Your task to perform on an android device: Check the price on the Dyson V11 Motorhead on Best Buy Image 0: 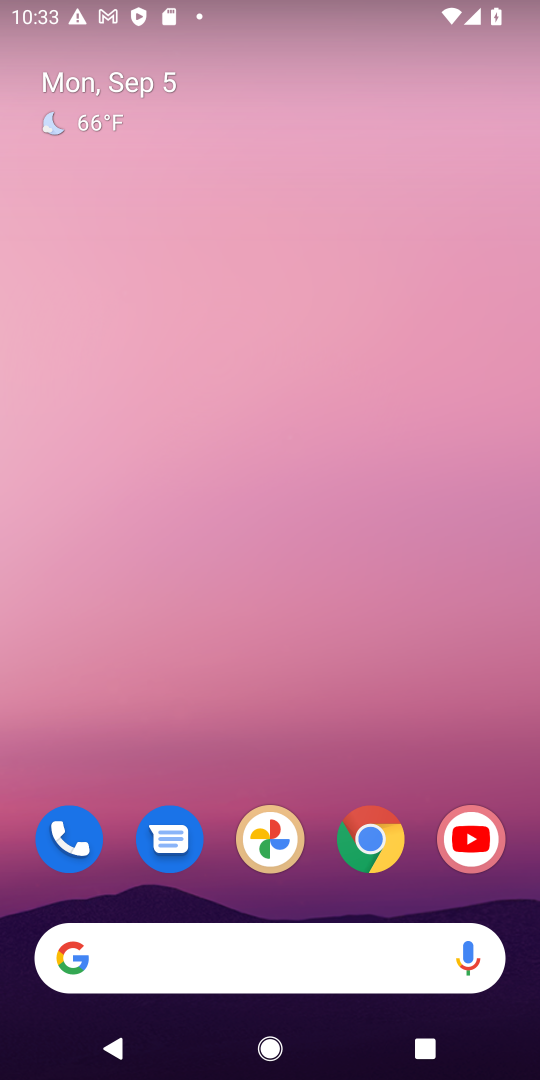
Step 0: drag from (210, 927) to (266, 125)
Your task to perform on an android device: Check the price on the Dyson V11 Motorhead on Best Buy Image 1: 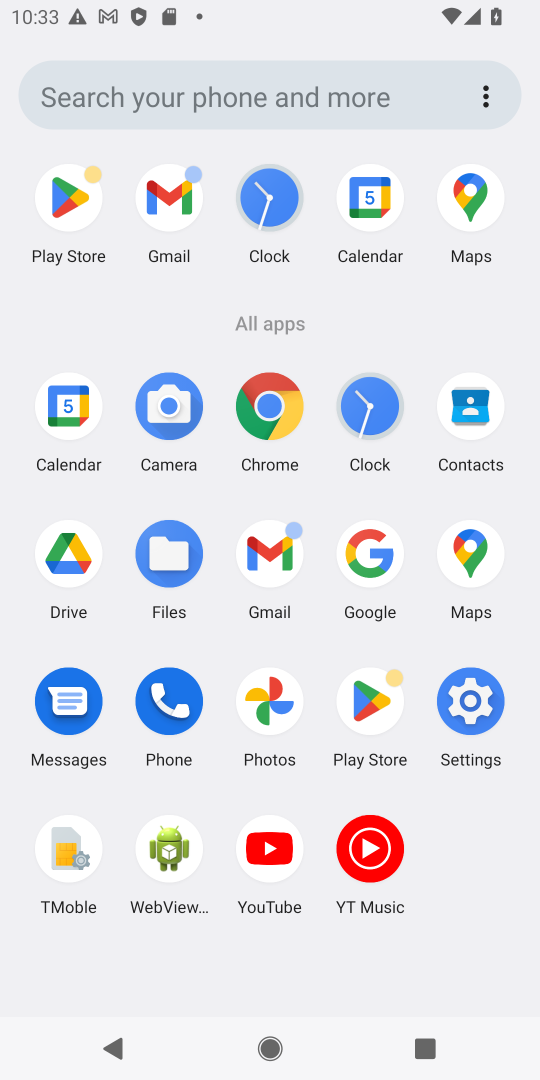
Step 1: click (355, 553)
Your task to perform on an android device: Check the price on the Dyson V11 Motorhead on Best Buy Image 2: 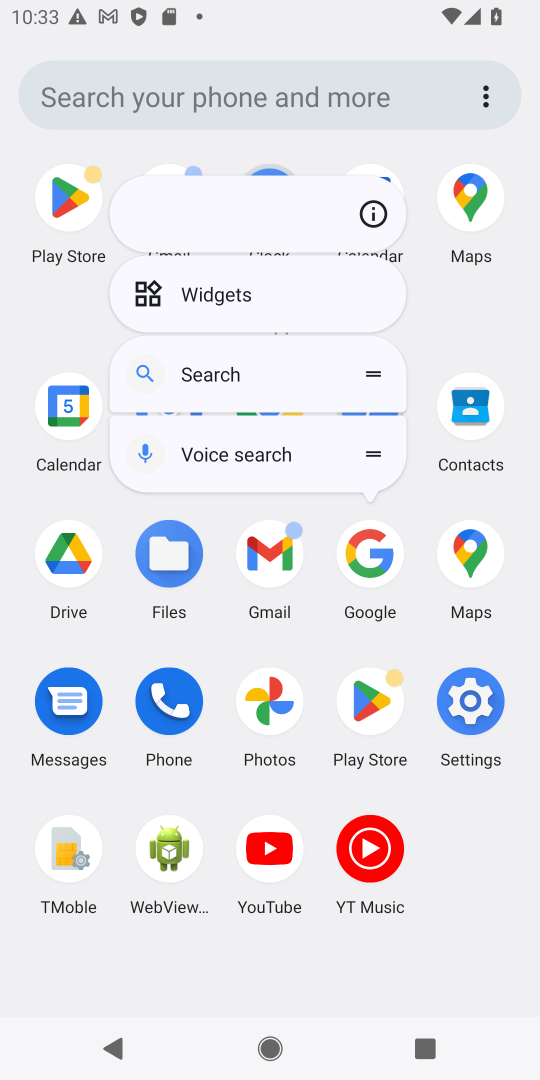
Step 2: click (377, 555)
Your task to perform on an android device: Check the price on the Dyson V11 Motorhead on Best Buy Image 3: 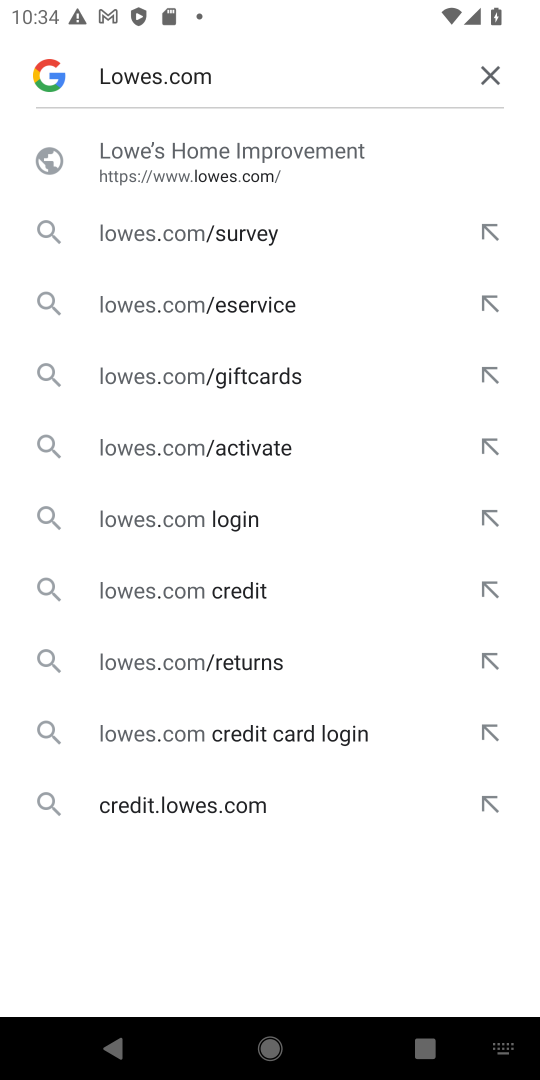
Step 3: click (503, 74)
Your task to perform on an android device: Check the price on the Dyson V11 Motorhead on Best Buy Image 4: 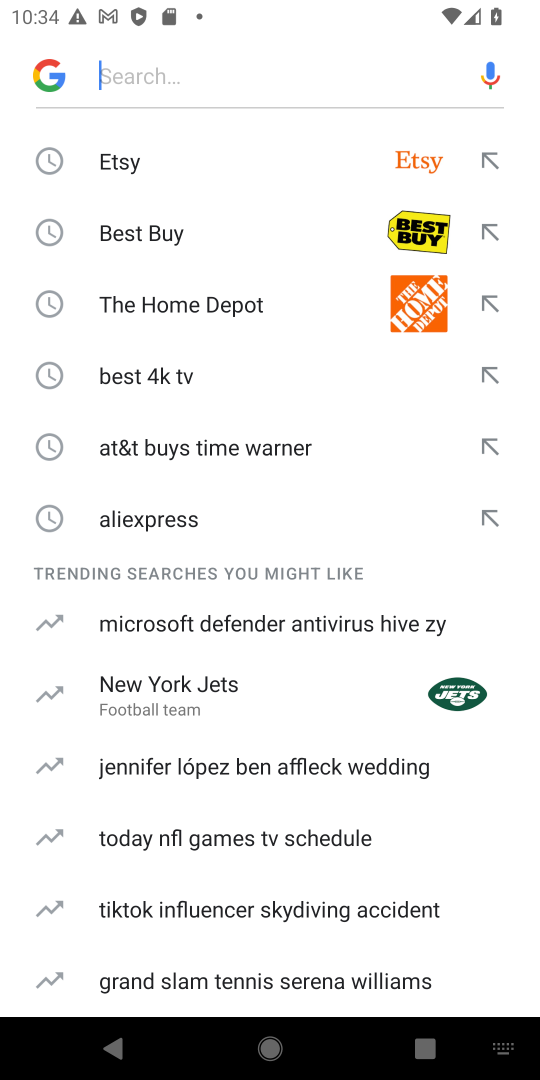
Step 4: type "Best Buy"
Your task to perform on an android device: Check the price on the Dyson V11 Motorhead on Best Buy Image 5: 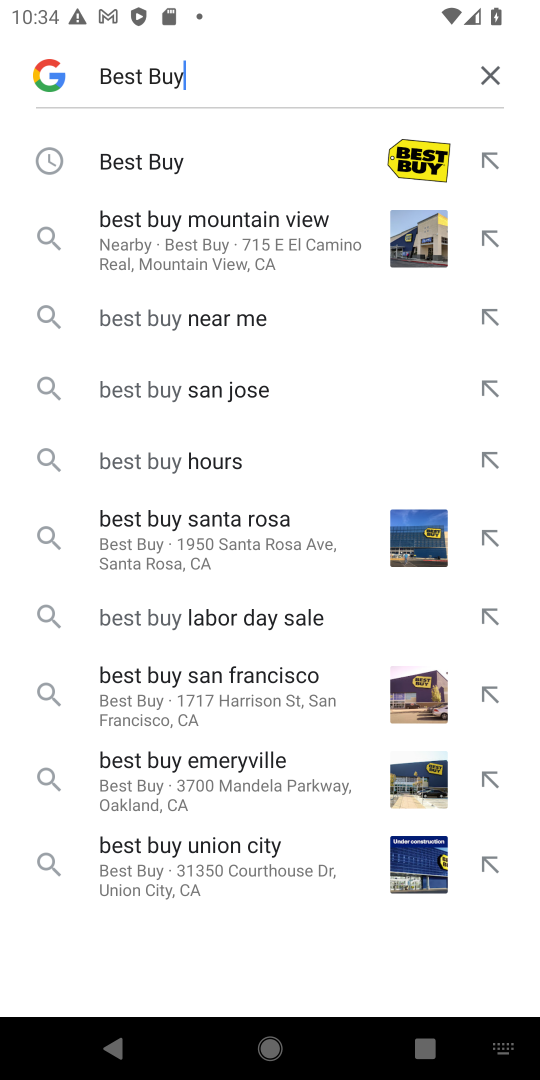
Step 5: click (423, 158)
Your task to perform on an android device: Check the price on the Dyson V11 Motorhead on Best Buy Image 6: 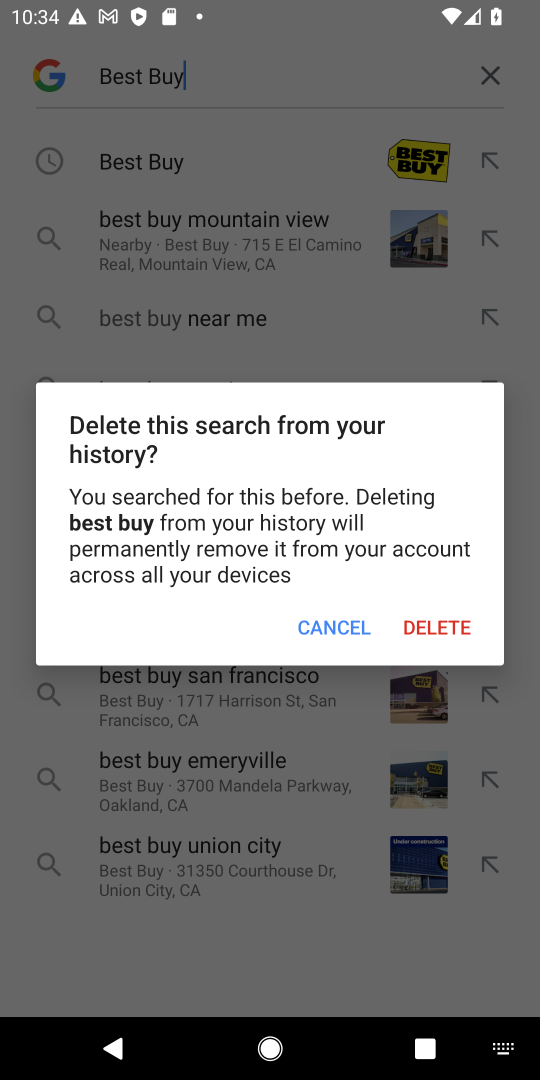
Step 6: click (333, 622)
Your task to perform on an android device: Check the price on the Dyson V11 Motorhead on Best Buy Image 7: 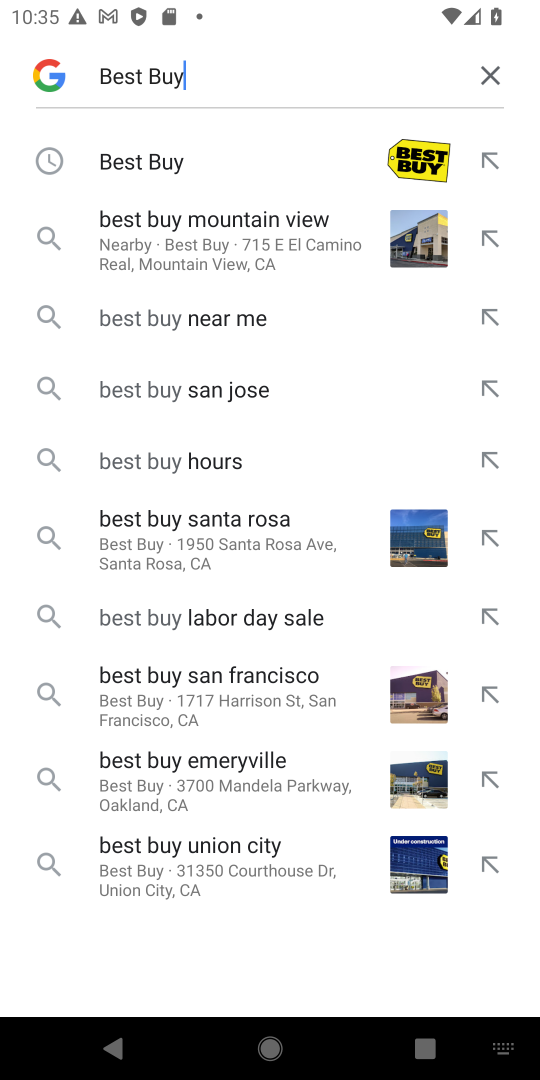
Step 7: click (445, 160)
Your task to perform on an android device: Check the price on the Dyson V11 Motorhead on Best Buy Image 8: 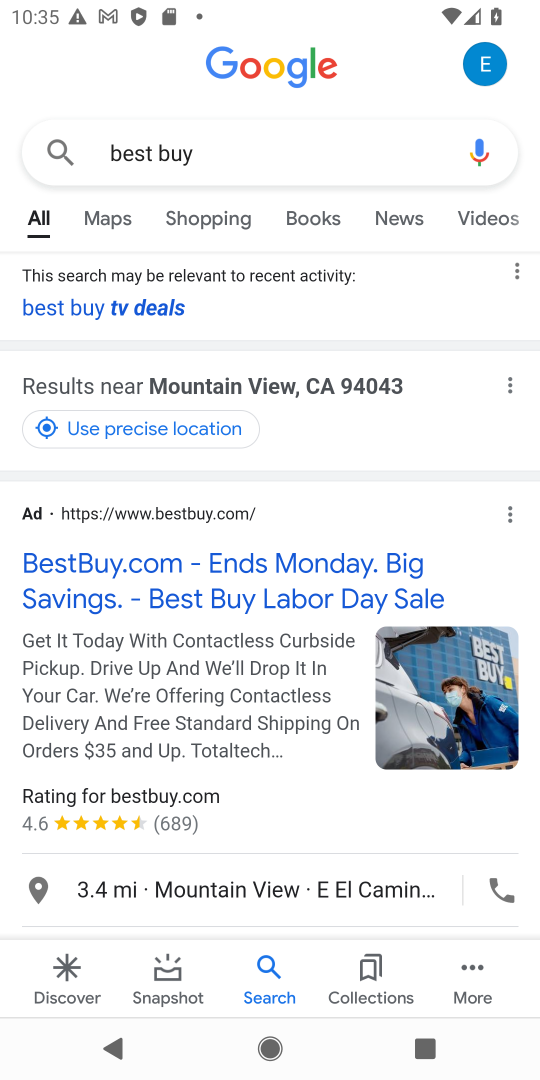
Step 8: click (200, 589)
Your task to perform on an android device: Check the price on the Dyson V11 Motorhead on Best Buy Image 9: 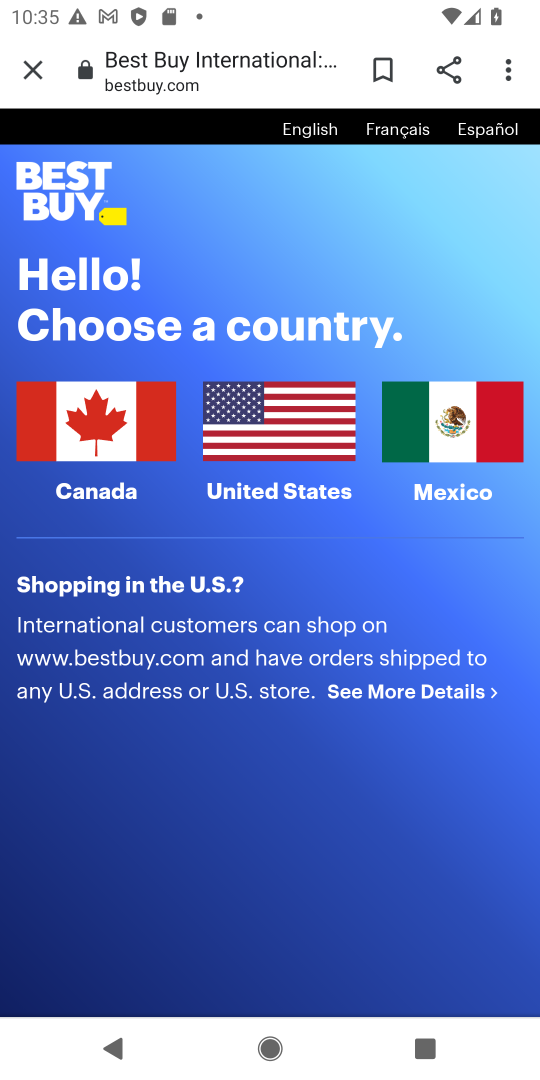
Step 9: task complete